Your task to perform on an android device: check data usage Image 0: 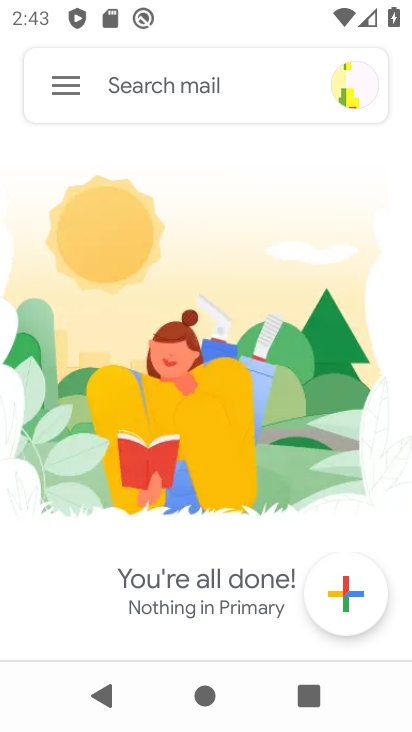
Step 0: press back button
Your task to perform on an android device: check data usage Image 1: 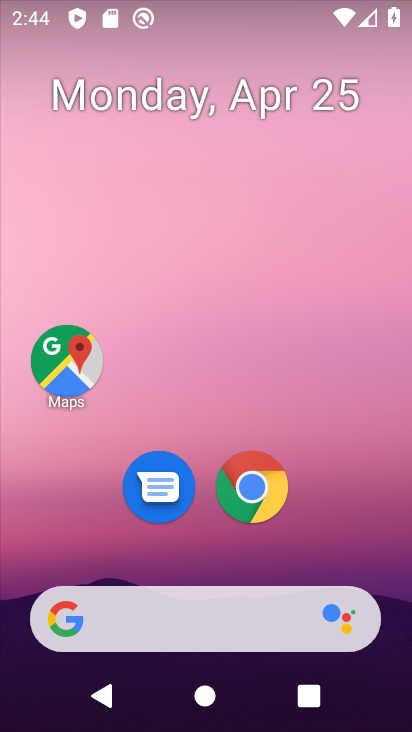
Step 1: drag from (160, 551) to (267, 17)
Your task to perform on an android device: check data usage Image 2: 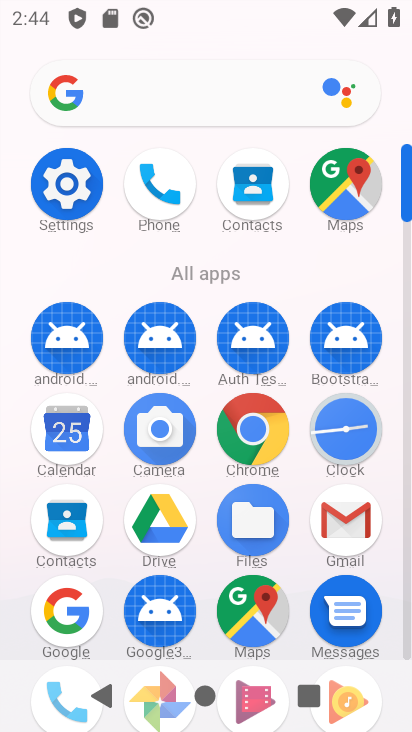
Step 2: drag from (191, 590) to (270, 250)
Your task to perform on an android device: check data usage Image 3: 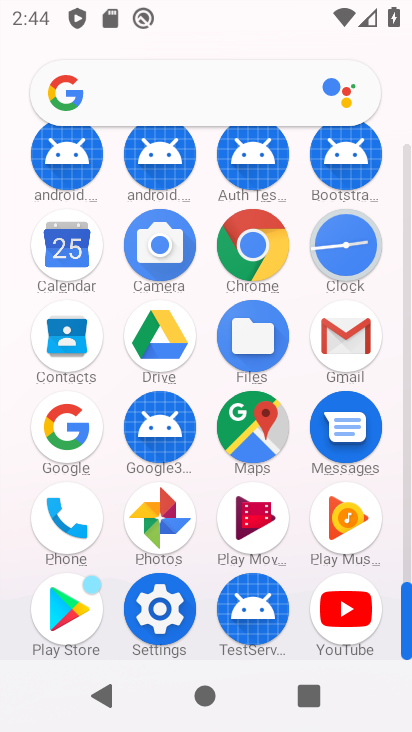
Step 3: click (144, 613)
Your task to perform on an android device: check data usage Image 4: 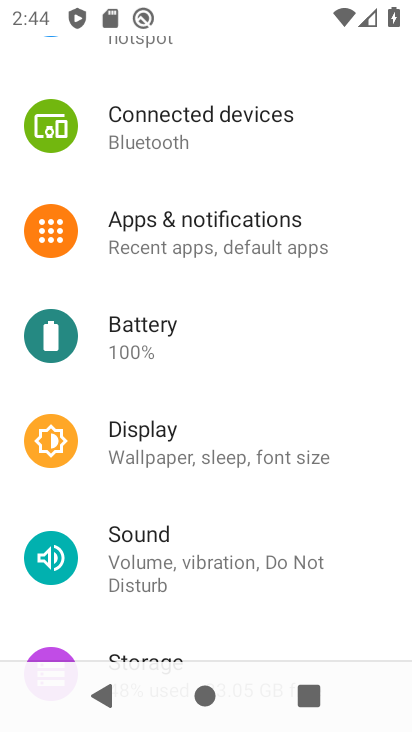
Step 4: drag from (228, 209) to (179, 436)
Your task to perform on an android device: check data usage Image 5: 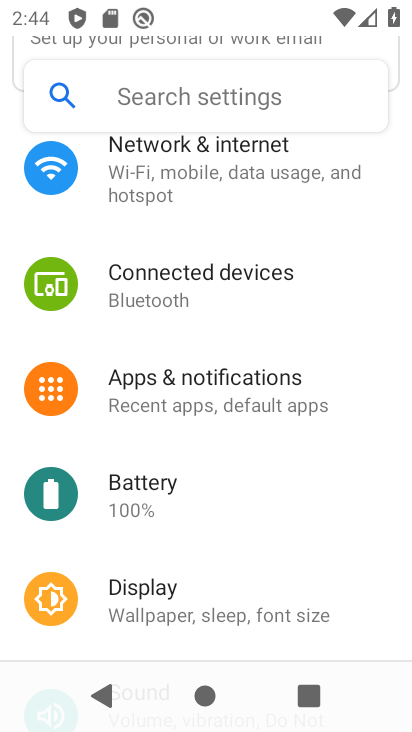
Step 5: click (245, 194)
Your task to perform on an android device: check data usage Image 6: 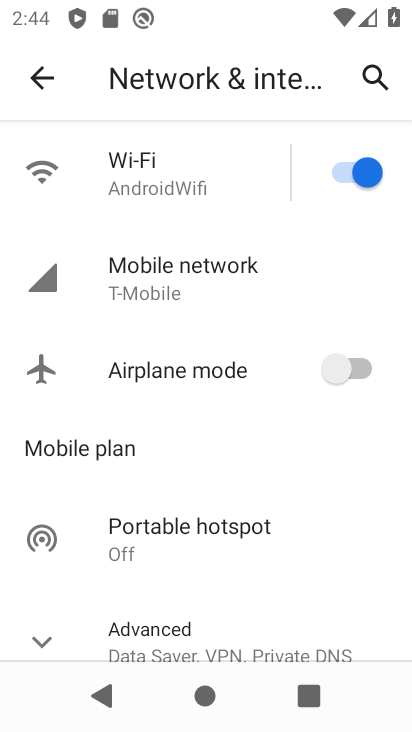
Step 6: click (191, 303)
Your task to perform on an android device: check data usage Image 7: 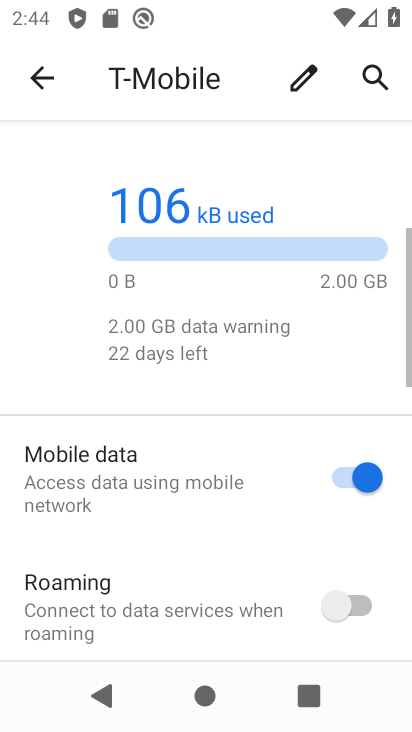
Step 7: drag from (151, 511) to (235, 183)
Your task to perform on an android device: check data usage Image 8: 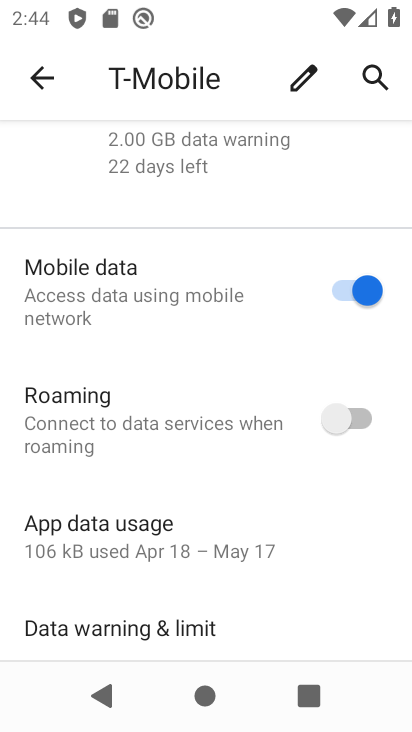
Step 8: click (183, 548)
Your task to perform on an android device: check data usage Image 9: 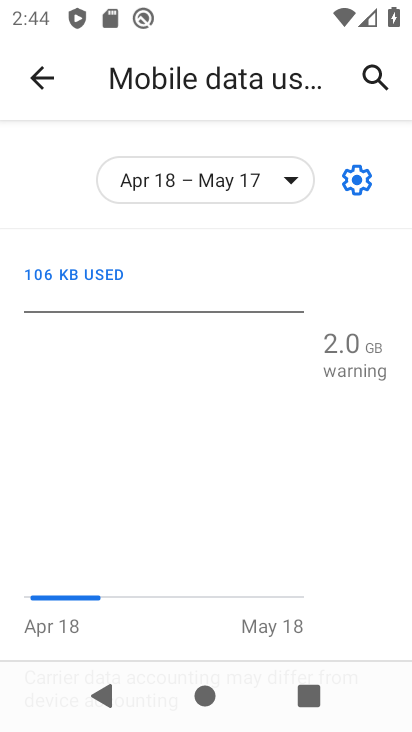
Step 9: task complete